Your task to perform on an android device: What's the weather going to be this weekend? Image 0: 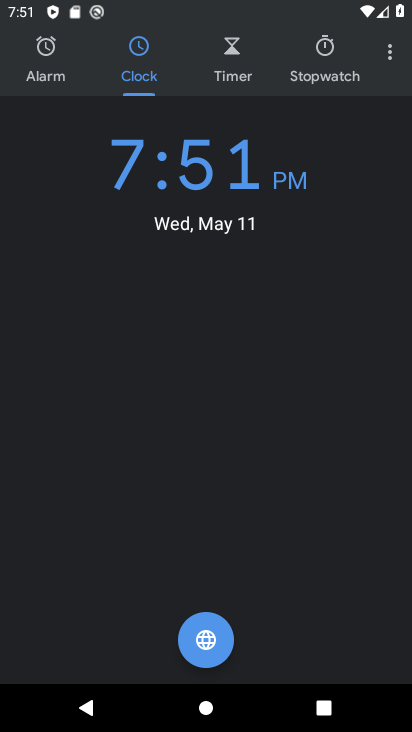
Step 0: press home button
Your task to perform on an android device: What's the weather going to be this weekend? Image 1: 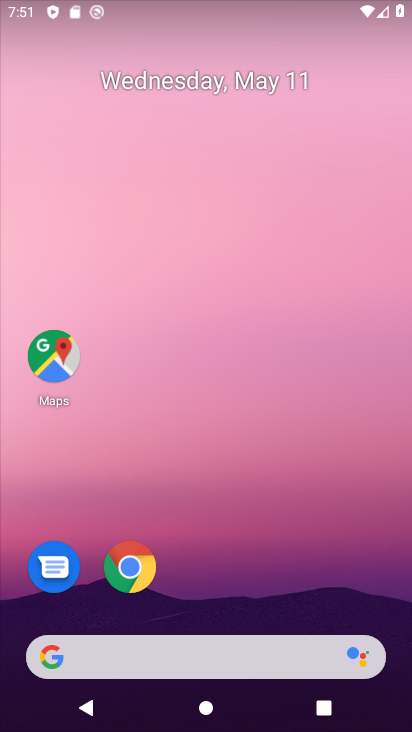
Step 1: click (183, 669)
Your task to perform on an android device: What's the weather going to be this weekend? Image 2: 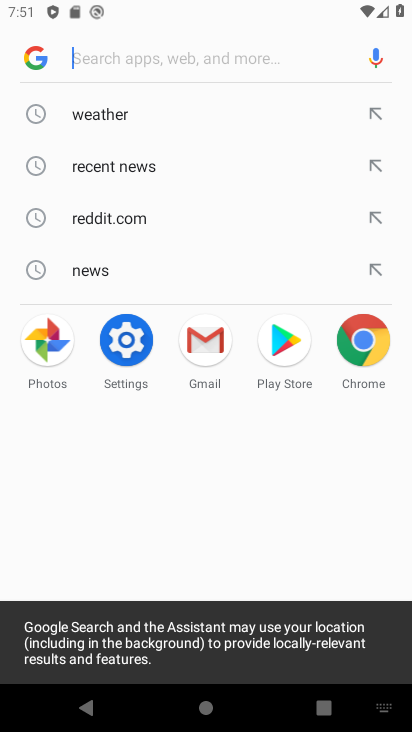
Step 2: click (94, 117)
Your task to perform on an android device: What's the weather going to be this weekend? Image 3: 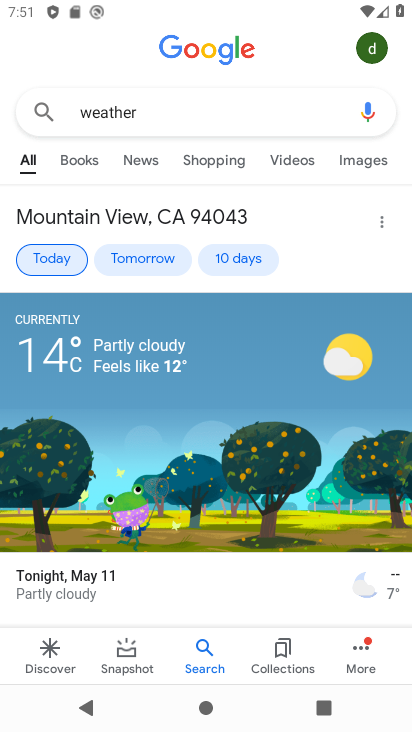
Step 3: click (209, 252)
Your task to perform on an android device: What's the weather going to be this weekend? Image 4: 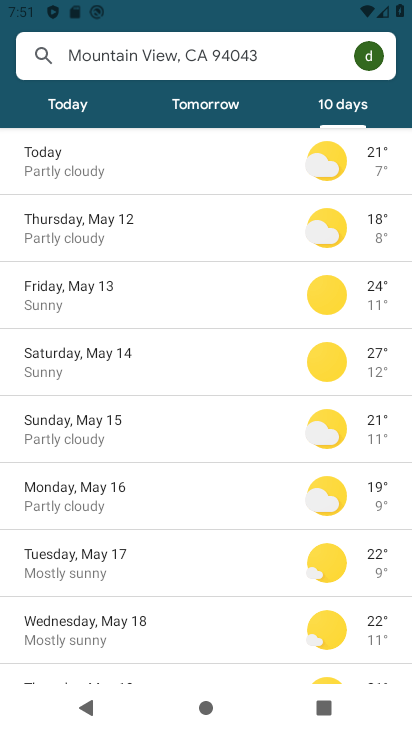
Step 4: drag from (158, 553) to (155, 470)
Your task to perform on an android device: What's the weather going to be this weekend? Image 5: 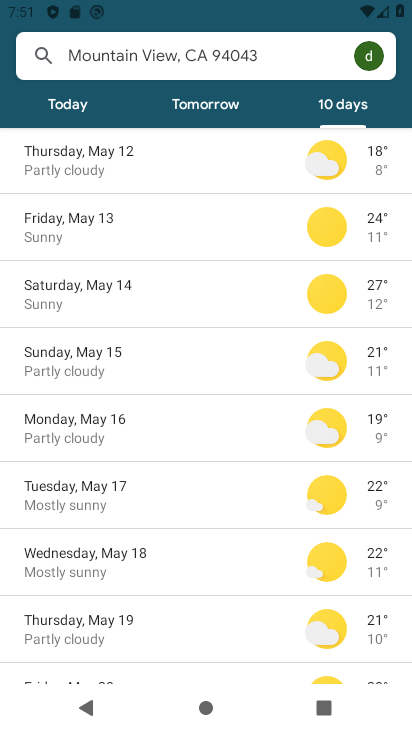
Step 5: click (216, 224)
Your task to perform on an android device: What's the weather going to be this weekend? Image 6: 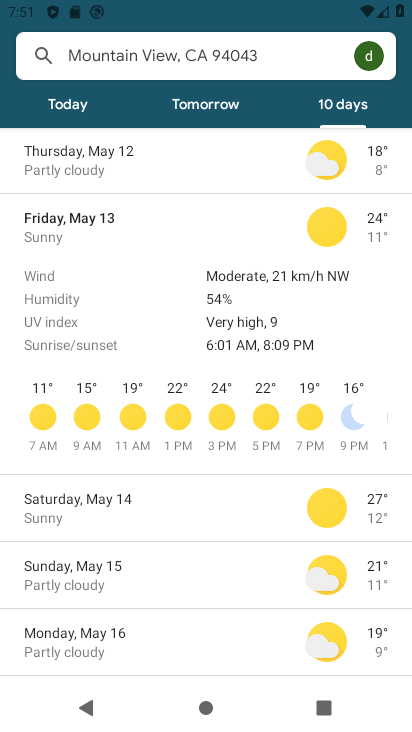
Step 6: click (87, 521)
Your task to perform on an android device: What's the weather going to be this weekend? Image 7: 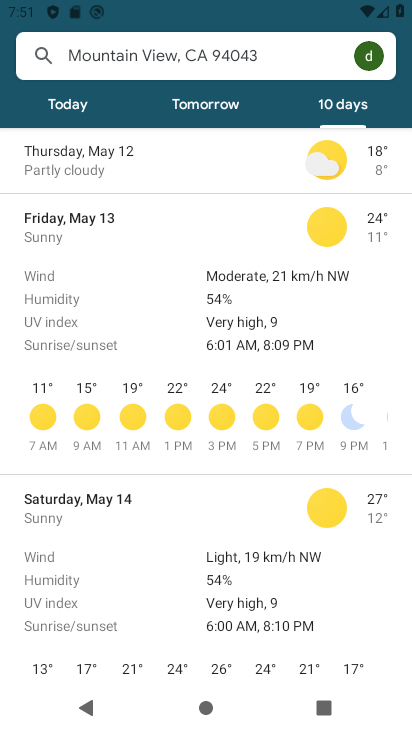
Step 7: drag from (73, 594) to (154, 312)
Your task to perform on an android device: What's the weather going to be this weekend? Image 8: 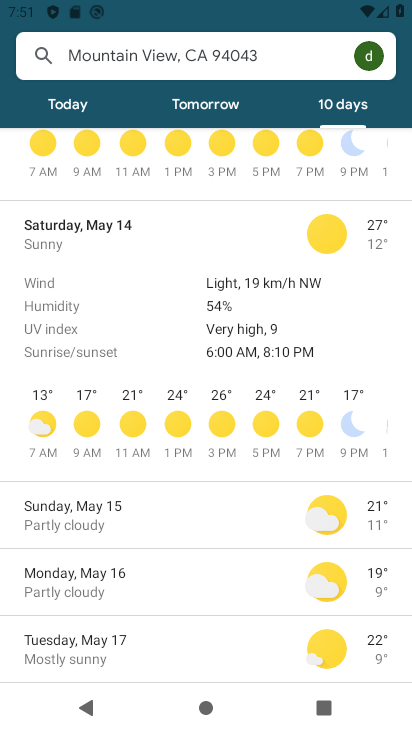
Step 8: click (91, 512)
Your task to perform on an android device: What's the weather going to be this weekend? Image 9: 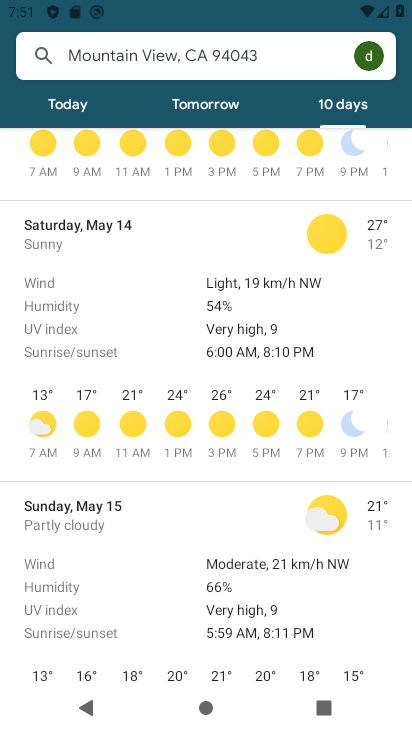
Step 9: task complete